Your task to perform on an android device: Open Google Image 0: 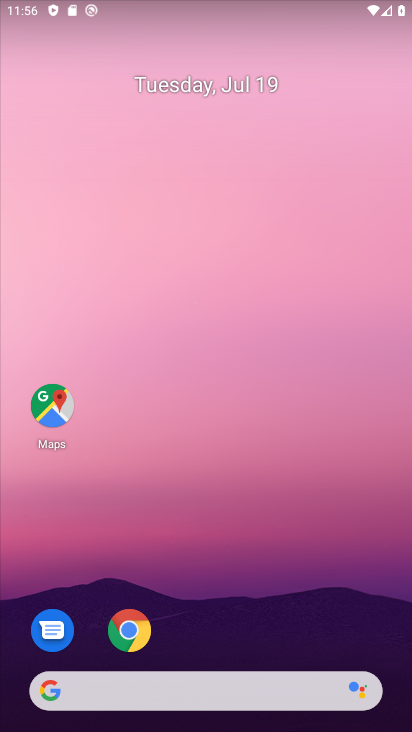
Step 0: click (50, 691)
Your task to perform on an android device: Open Google Image 1: 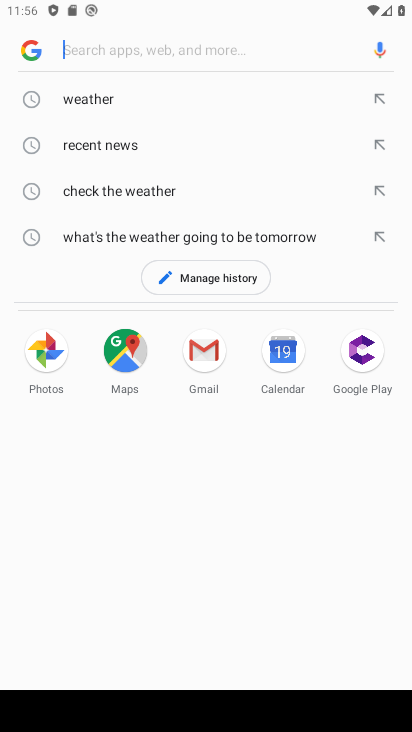
Step 1: click (31, 51)
Your task to perform on an android device: Open Google Image 2: 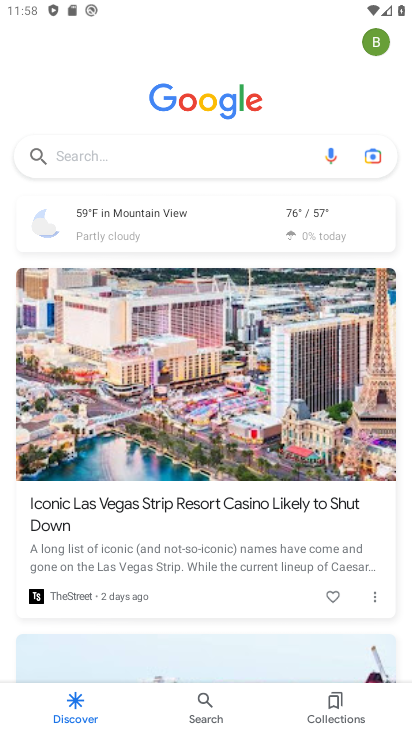
Step 2: task complete